Your task to perform on an android device: turn off airplane mode Image 0: 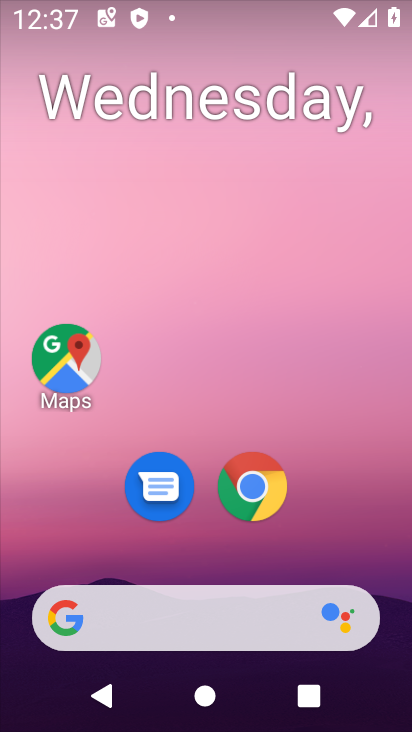
Step 0: drag from (364, 541) to (365, 132)
Your task to perform on an android device: turn off airplane mode Image 1: 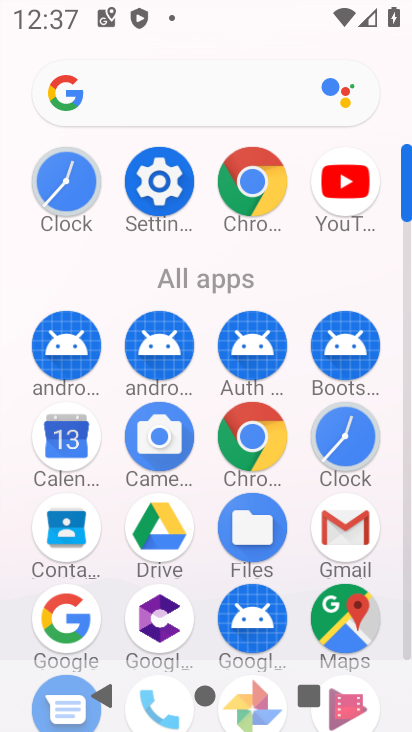
Step 1: click (176, 201)
Your task to perform on an android device: turn off airplane mode Image 2: 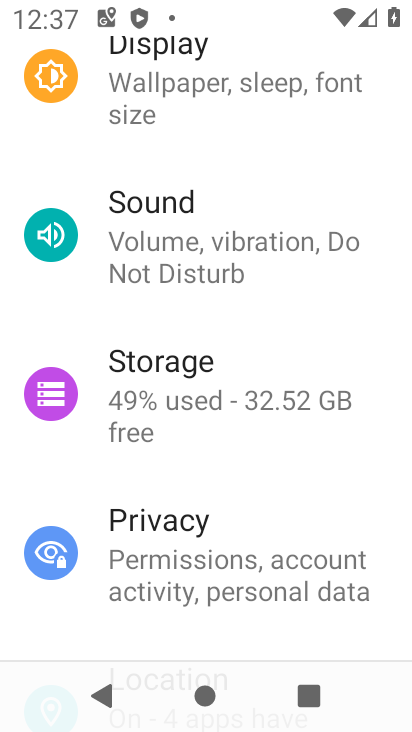
Step 2: drag from (374, 181) to (368, 383)
Your task to perform on an android device: turn off airplane mode Image 3: 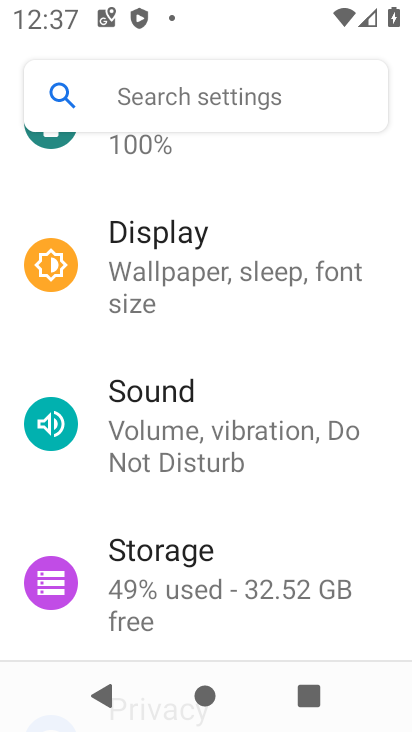
Step 3: drag from (386, 209) to (374, 360)
Your task to perform on an android device: turn off airplane mode Image 4: 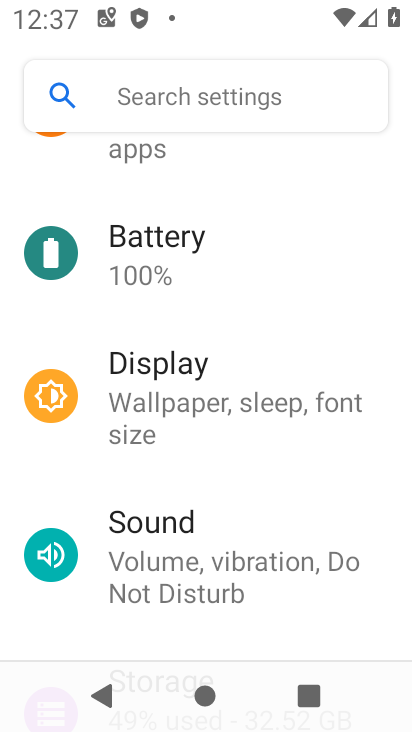
Step 4: drag from (373, 226) to (362, 401)
Your task to perform on an android device: turn off airplane mode Image 5: 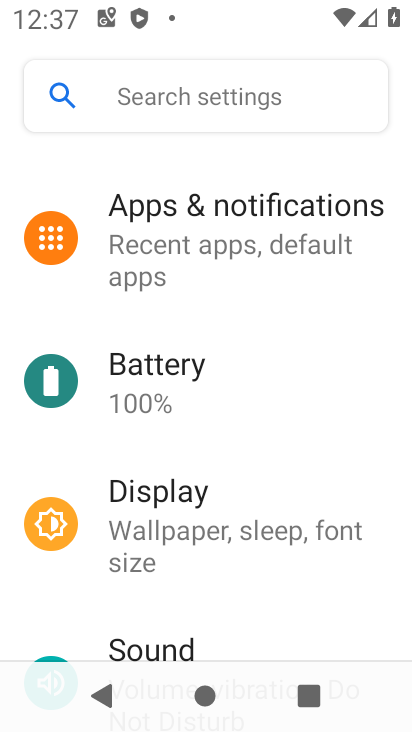
Step 5: drag from (364, 345) to (366, 462)
Your task to perform on an android device: turn off airplane mode Image 6: 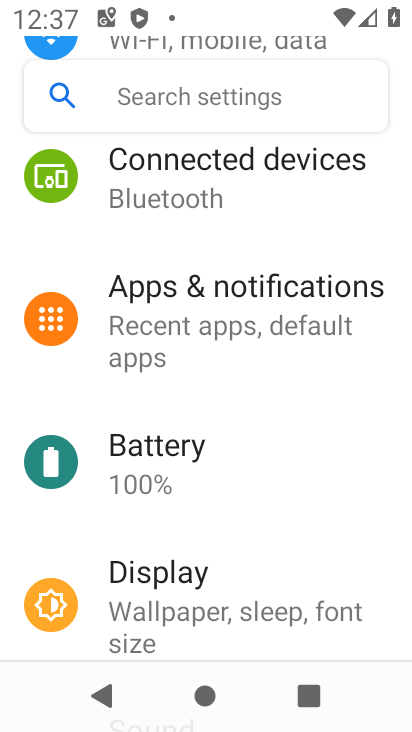
Step 6: drag from (366, 323) to (364, 453)
Your task to perform on an android device: turn off airplane mode Image 7: 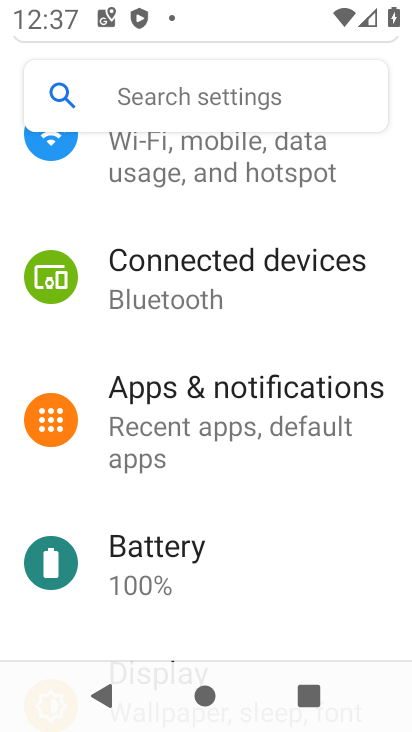
Step 7: drag from (344, 291) to (340, 510)
Your task to perform on an android device: turn off airplane mode Image 8: 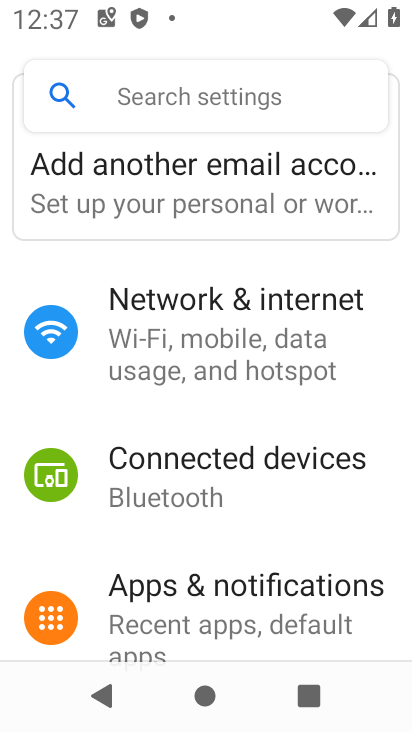
Step 8: click (272, 336)
Your task to perform on an android device: turn off airplane mode Image 9: 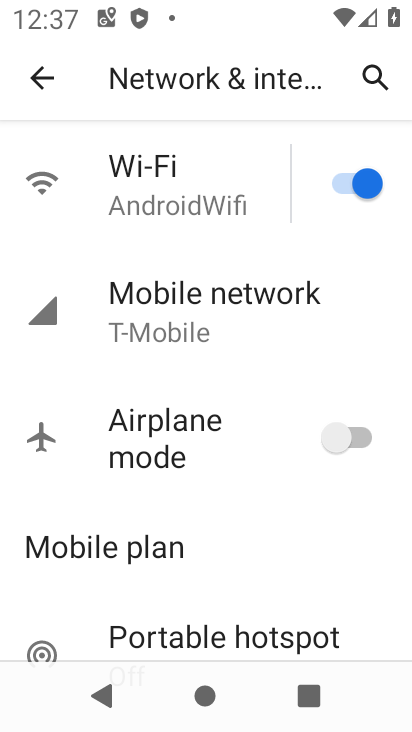
Step 9: task complete